Your task to perform on an android device: turn off smart reply in the gmail app Image 0: 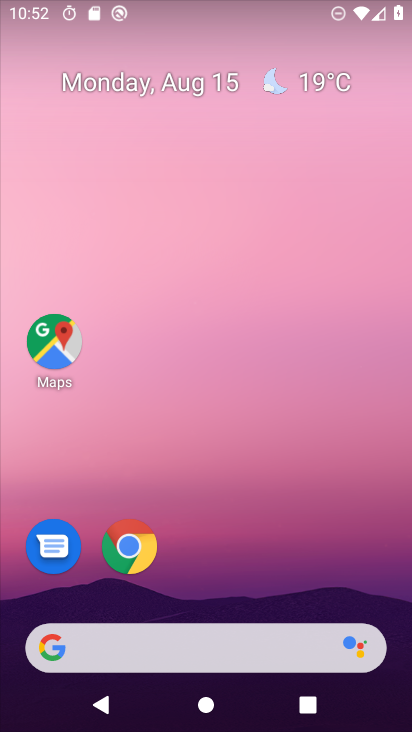
Step 0: drag from (220, 618) to (227, 63)
Your task to perform on an android device: turn off smart reply in the gmail app Image 1: 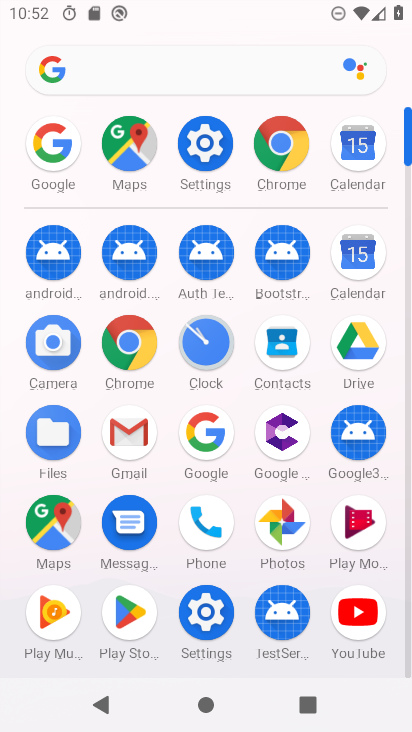
Step 1: click (126, 421)
Your task to perform on an android device: turn off smart reply in the gmail app Image 2: 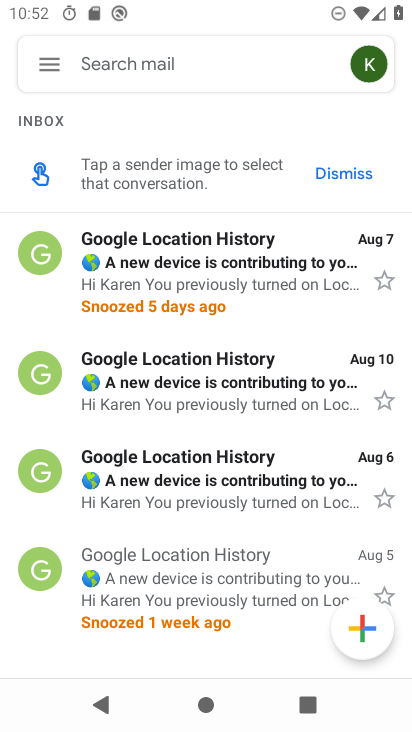
Step 2: click (45, 68)
Your task to perform on an android device: turn off smart reply in the gmail app Image 3: 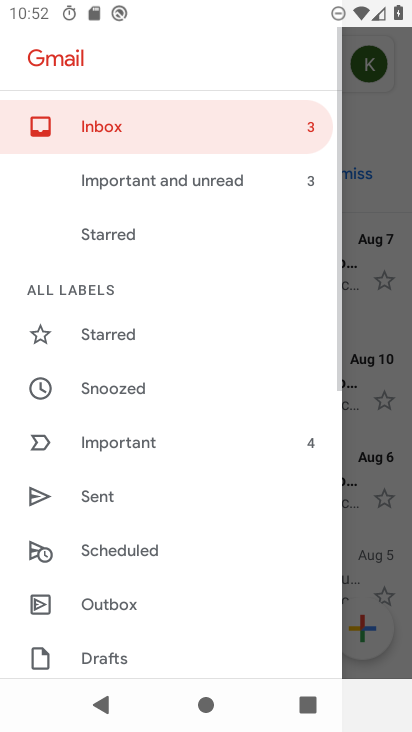
Step 3: drag from (115, 641) to (123, 311)
Your task to perform on an android device: turn off smart reply in the gmail app Image 4: 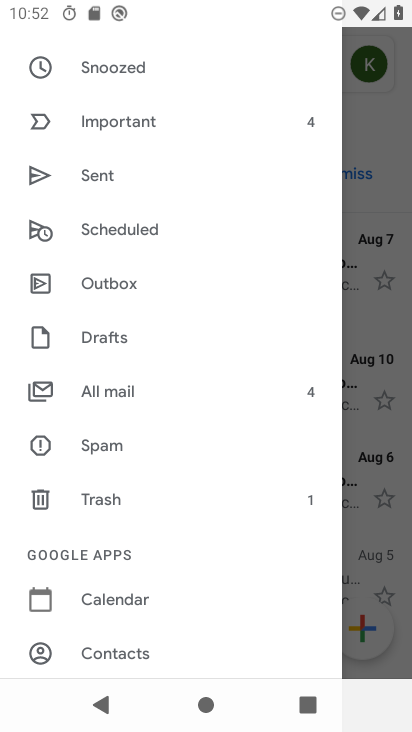
Step 4: drag from (139, 632) to (138, 365)
Your task to perform on an android device: turn off smart reply in the gmail app Image 5: 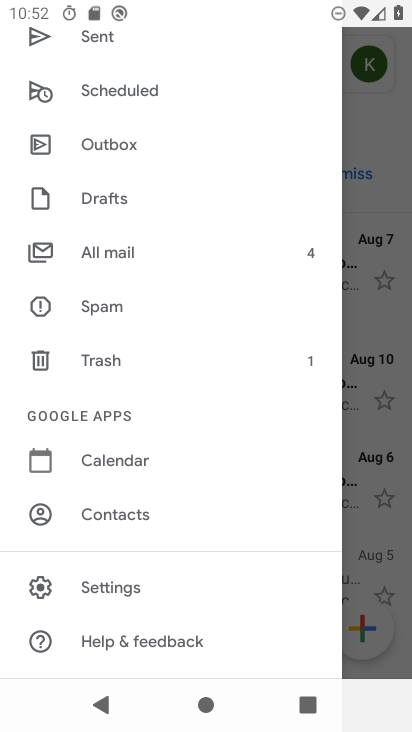
Step 5: click (100, 585)
Your task to perform on an android device: turn off smart reply in the gmail app Image 6: 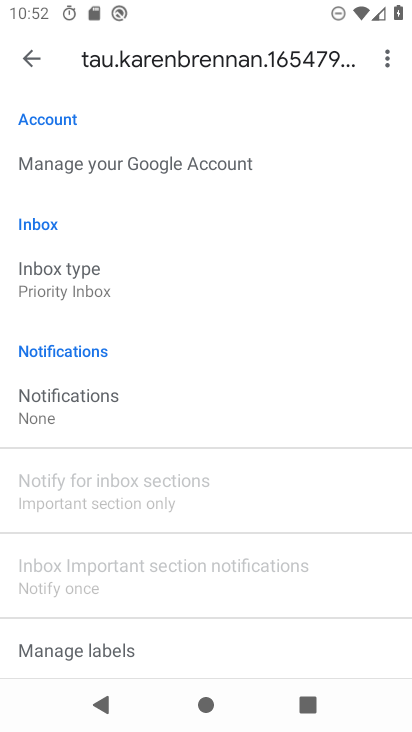
Step 6: drag from (122, 638) to (104, 282)
Your task to perform on an android device: turn off smart reply in the gmail app Image 7: 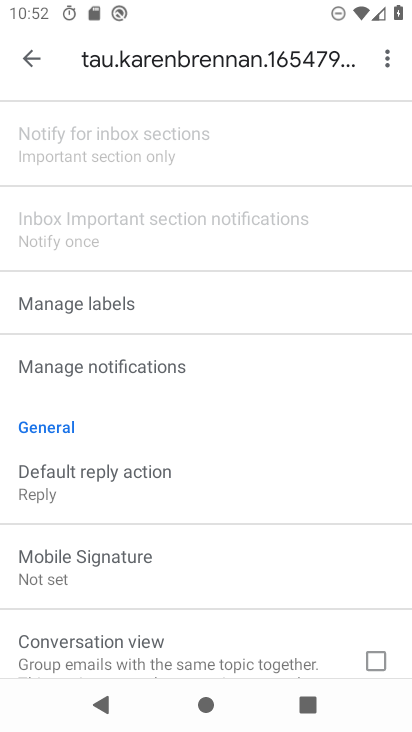
Step 7: drag from (205, 606) to (174, 310)
Your task to perform on an android device: turn off smart reply in the gmail app Image 8: 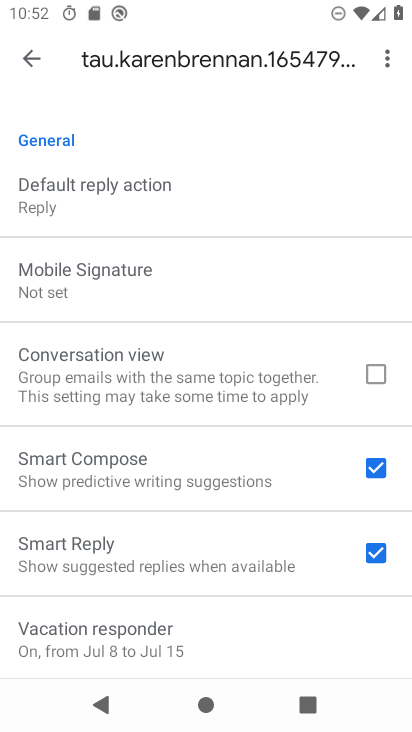
Step 8: click (383, 552)
Your task to perform on an android device: turn off smart reply in the gmail app Image 9: 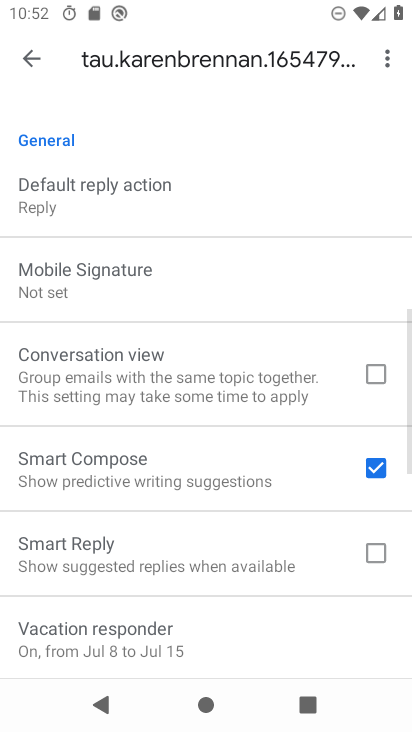
Step 9: task complete